Your task to perform on an android device: Open Chrome and go to settings Image 0: 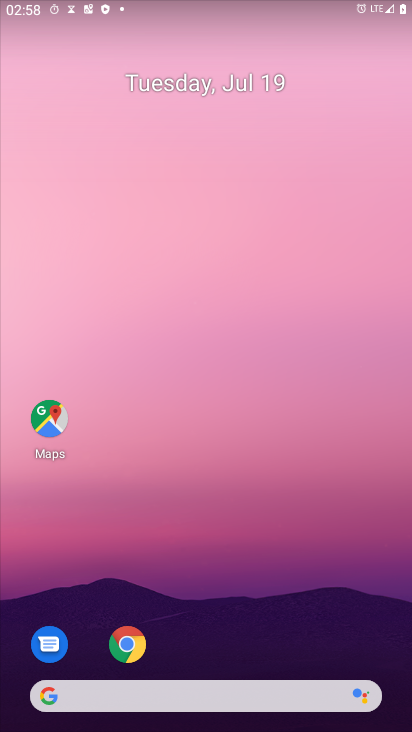
Step 0: click (133, 639)
Your task to perform on an android device: Open Chrome and go to settings Image 1: 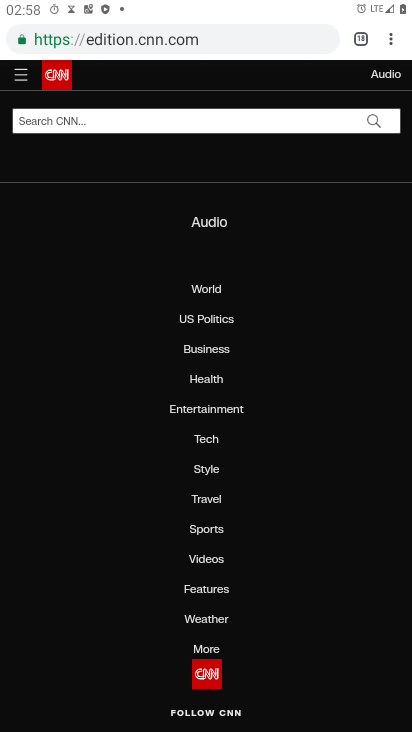
Step 1: click (392, 42)
Your task to perform on an android device: Open Chrome and go to settings Image 2: 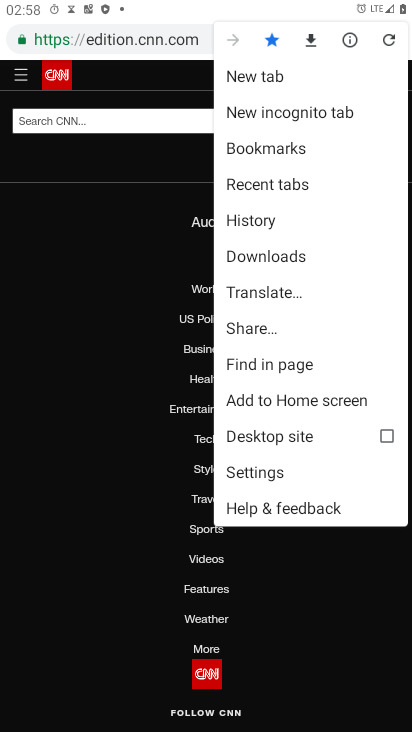
Step 2: click (262, 469)
Your task to perform on an android device: Open Chrome and go to settings Image 3: 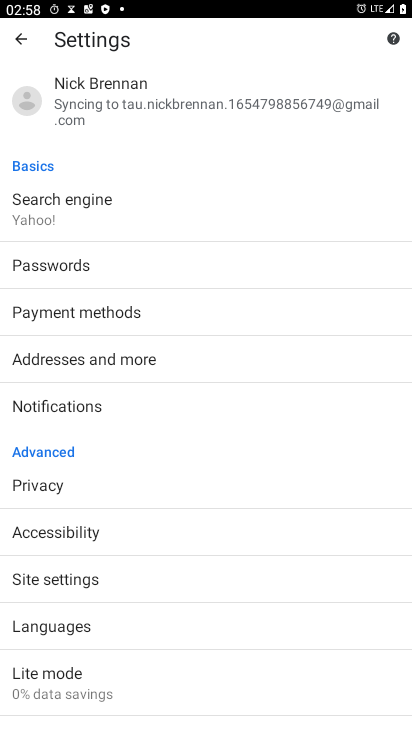
Step 3: task complete